Your task to perform on an android device: change text size in settings app Image 0: 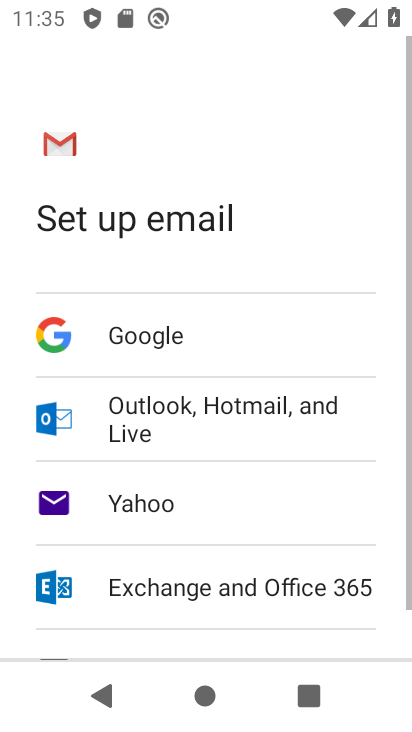
Step 0: press home button
Your task to perform on an android device: change text size in settings app Image 1: 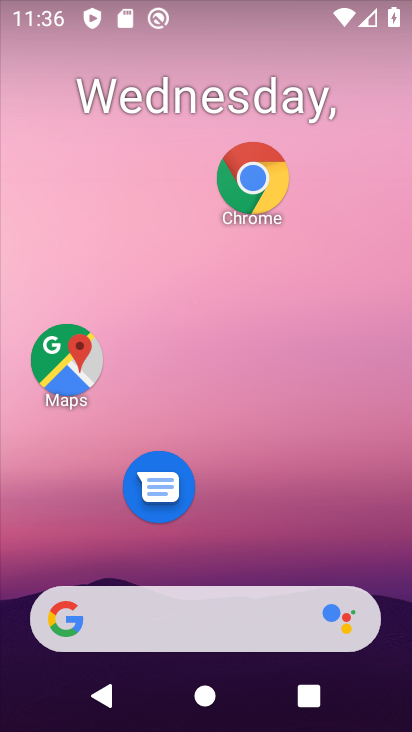
Step 1: drag from (288, 541) to (292, 77)
Your task to perform on an android device: change text size in settings app Image 2: 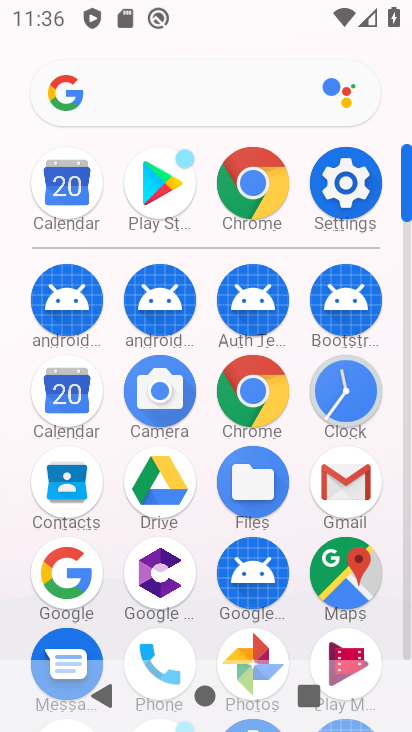
Step 2: click (341, 180)
Your task to perform on an android device: change text size in settings app Image 3: 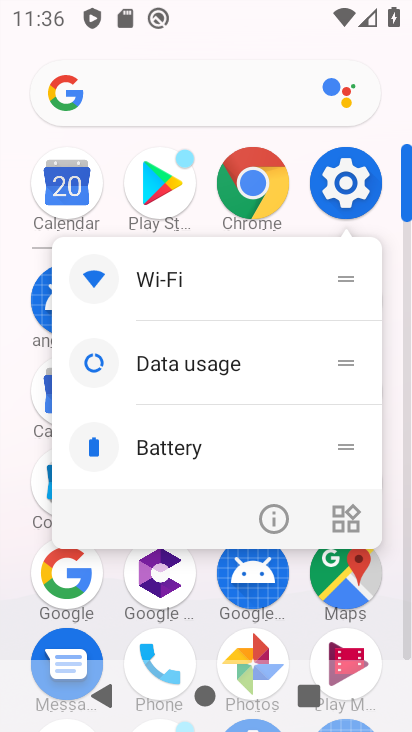
Step 3: click (341, 180)
Your task to perform on an android device: change text size in settings app Image 4: 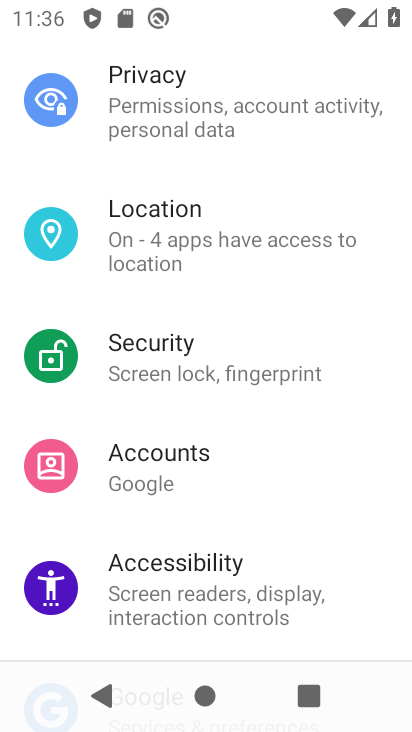
Step 4: drag from (288, 187) to (289, 520)
Your task to perform on an android device: change text size in settings app Image 5: 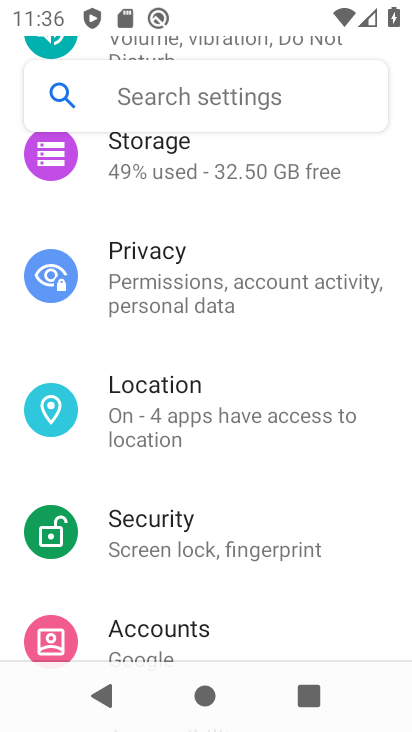
Step 5: drag from (296, 234) to (289, 557)
Your task to perform on an android device: change text size in settings app Image 6: 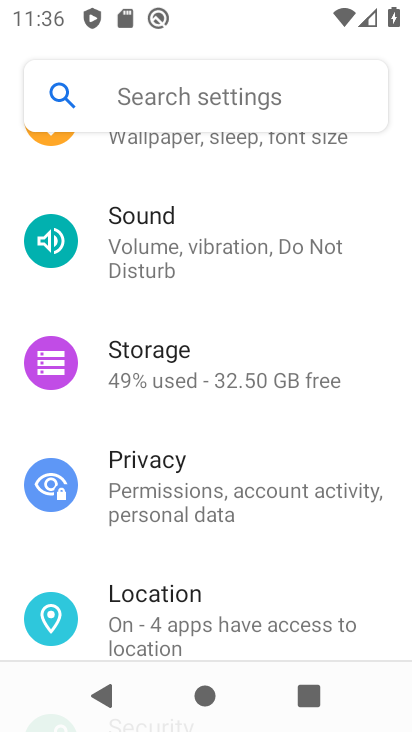
Step 6: click (248, 133)
Your task to perform on an android device: change text size in settings app Image 7: 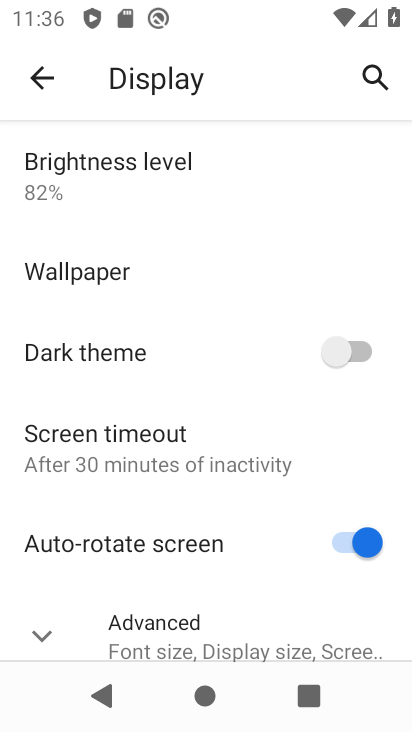
Step 7: click (231, 635)
Your task to perform on an android device: change text size in settings app Image 8: 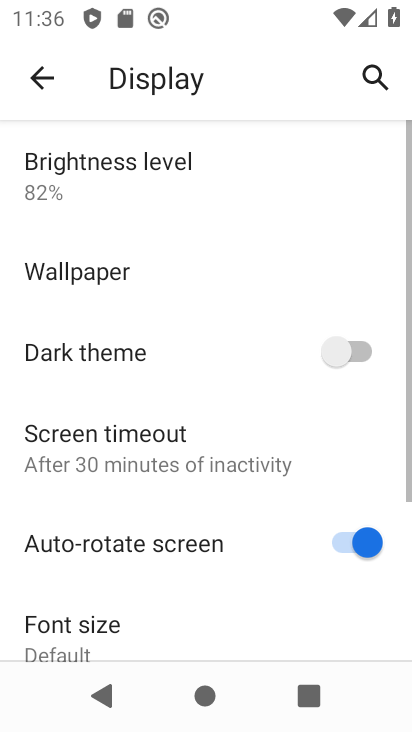
Step 8: drag from (230, 621) to (217, 280)
Your task to perform on an android device: change text size in settings app Image 9: 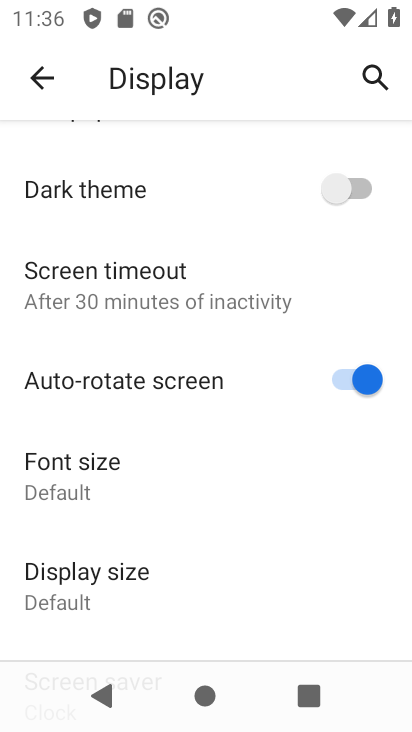
Step 9: click (134, 464)
Your task to perform on an android device: change text size in settings app Image 10: 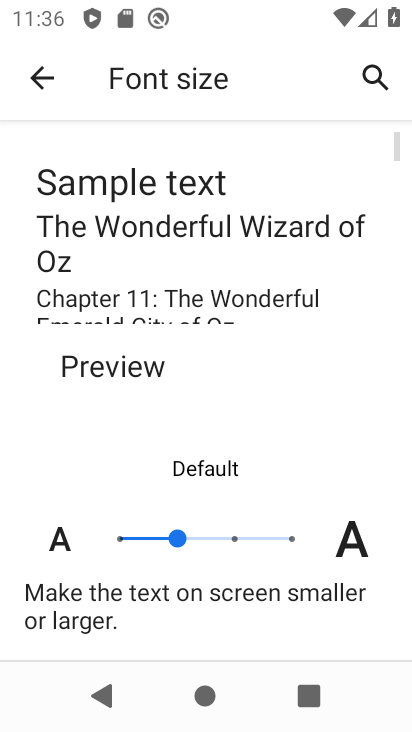
Step 10: task complete